Your task to perform on an android device: Open Chrome and go to settings Image 0: 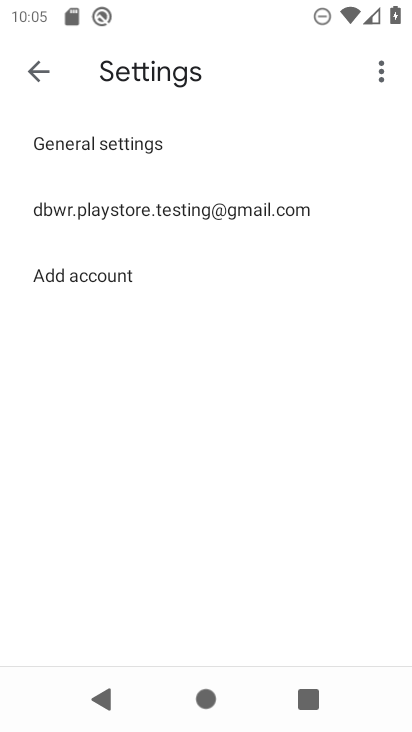
Step 0: press home button
Your task to perform on an android device: Open Chrome and go to settings Image 1: 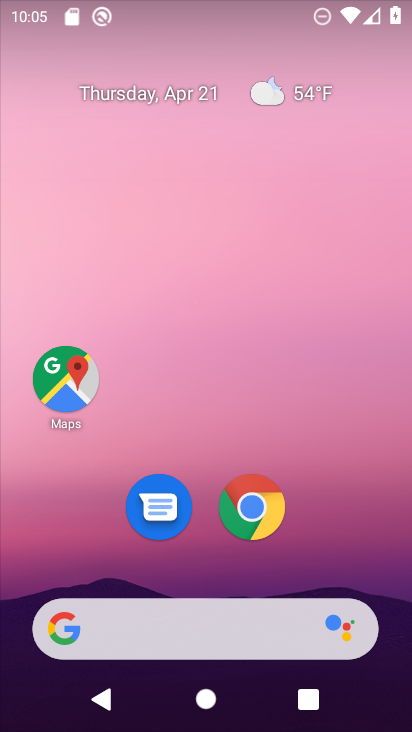
Step 1: click (250, 507)
Your task to perform on an android device: Open Chrome and go to settings Image 2: 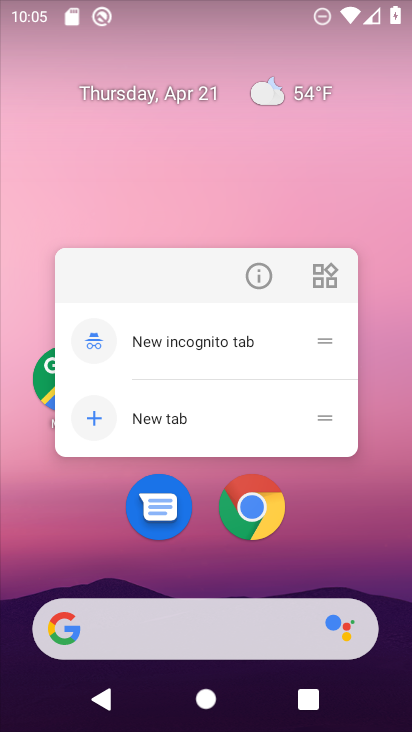
Step 2: click (247, 497)
Your task to perform on an android device: Open Chrome and go to settings Image 3: 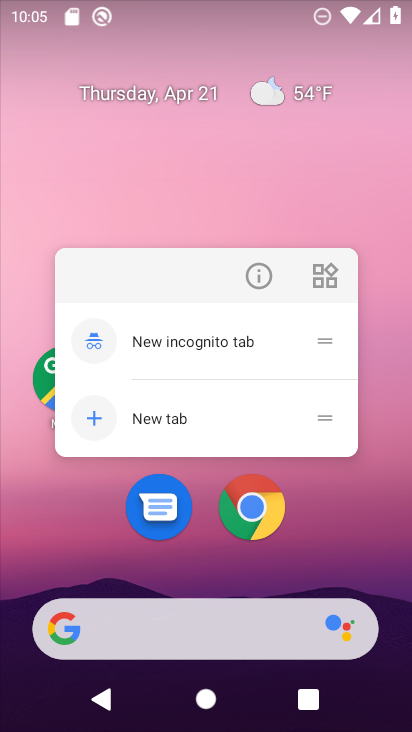
Step 3: click (261, 517)
Your task to perform on an android device: Open Chrome and go to settings Image 4: 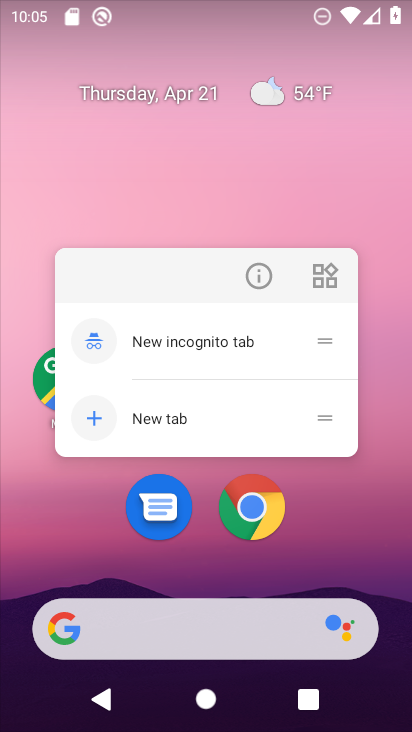
Step 4: click (254, 514)
Your task to perform on an android device: Open Chrome and go to settings Image 5: 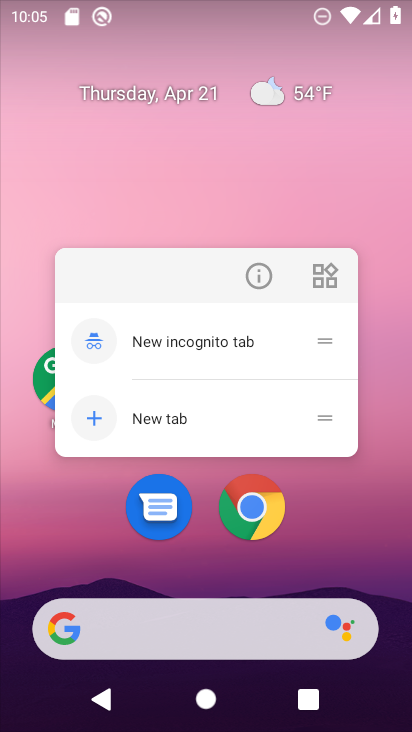
Step 5: click (254, 514)
Your task to perform on an android device: Open Chrome and go to settings Image 6: 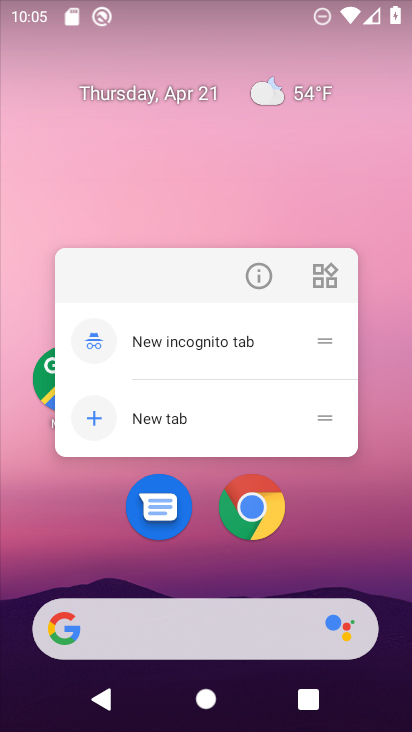
Step 6: click (254, 514)
Your task to perform on an android device: Open Chrome and go to settings Image 7: 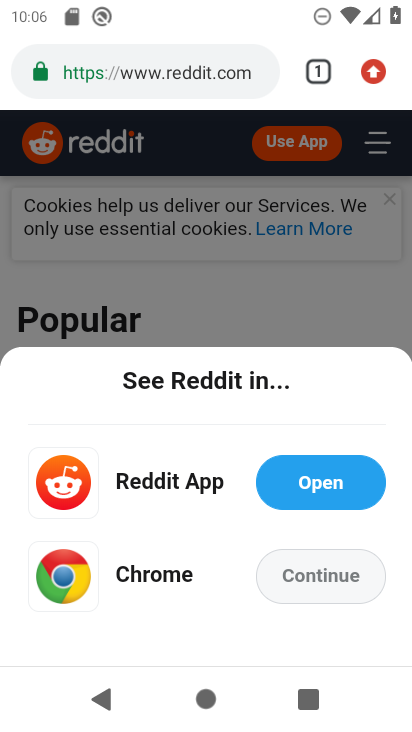
Step 7: click (318, 75)
Your task to perform on an android device: Open Chrome and go to settings Image 8: 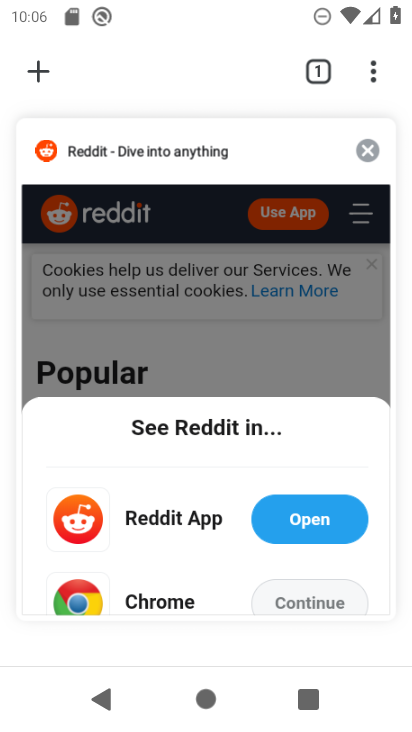
Step 8: click (373, 67)
Your task to perform on an android device: Open Chrome and go to settings Image 9: 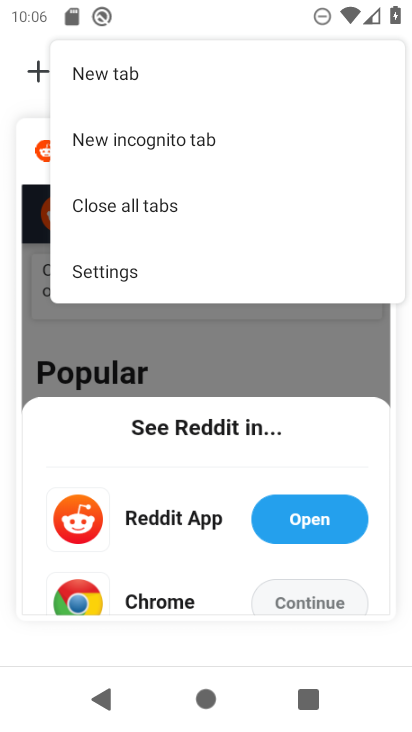
Step 9: click (133, 278)
Your task to perform on an android device: Open Chrome and go to settings Image 10: 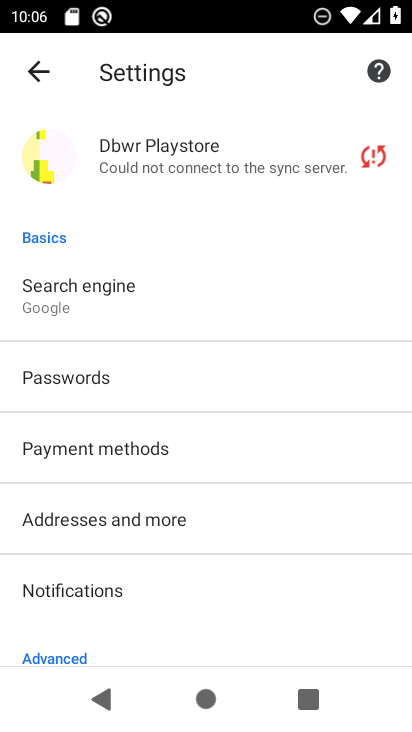
Step 10: task complete